Your task to perform on an android device: Search for "dell alienware" on newegg, select the first entry, add it to the cart, then select checkout. Image 0: 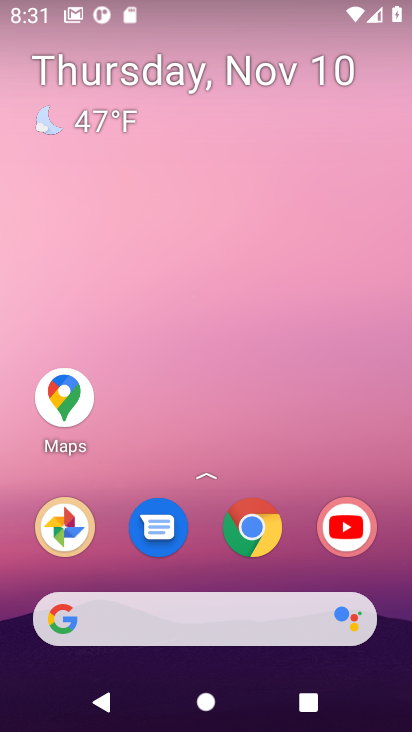
Step 0: drag from (229, 552) to (164, 25)
Your task to perform on an android device: Search for "dell alienware" on newegg, select the first entry, add it to the cart, then select checkout. Image 1: 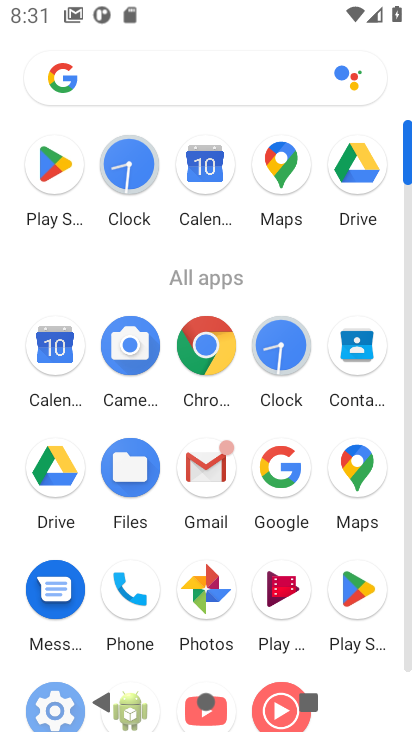
Step 1: click (214, 343)
Your task to perform on an android device: Search for "dell alienware" on newegg, select the first entry, add it to the cart, then select checkout. Image 2: 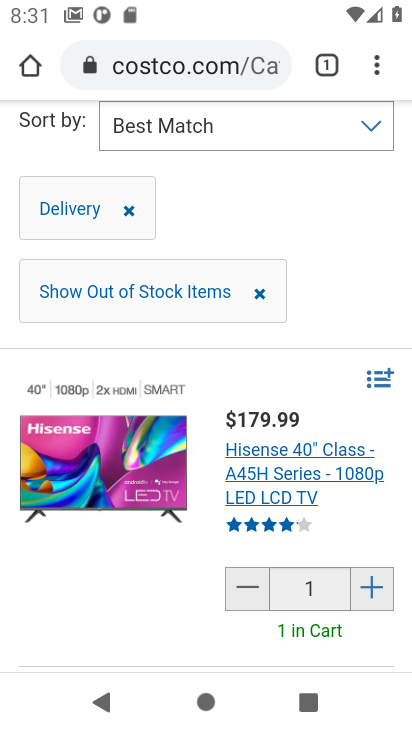
Step 2: drag from (183, 155) to (270, 488)
Your task to perform on an android device: Search for "dell alienware" on newegg, select the first entry, add it to the cart, then select checkout. Image 3: 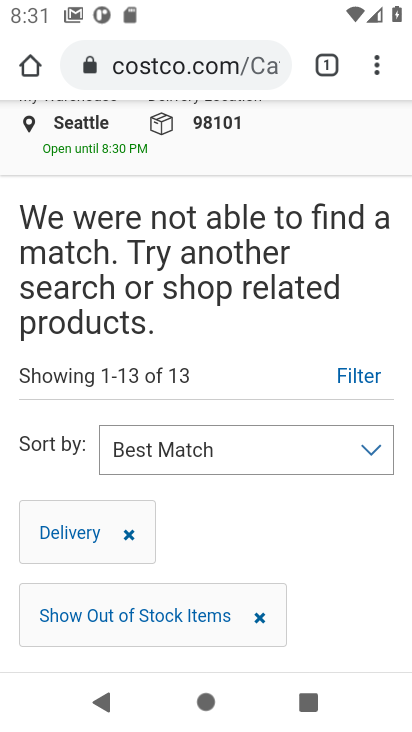
Step 3: drag from (171, 254) to (234, 546)
Your task to perform on an android device: Search for "dell alienware" on newegg, select the first entry, add it to the cart, then select checkout. Image 4: 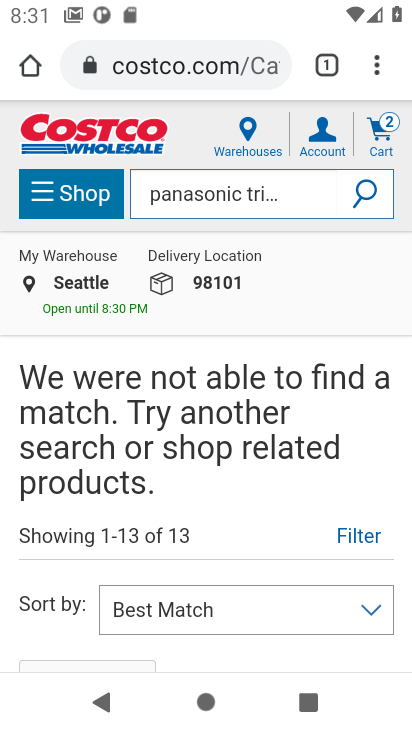
Step 4: click (158, 64)
Your task to perform on an android device: Search for "dell alienware" on newegg, select the first entry, add it to the cart, then select checkout. Image 5: 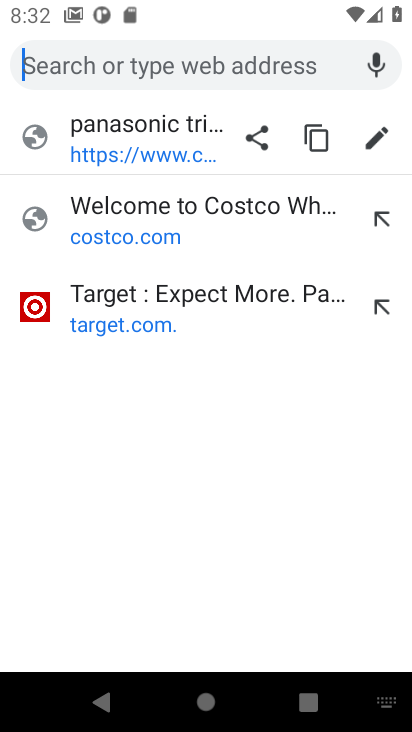
Step 5: type "newegg"
Your task to perform on an android device: Search for "dell alienware" on newegg, select the first entry, add it to the cart, then select checkout. Image 6: 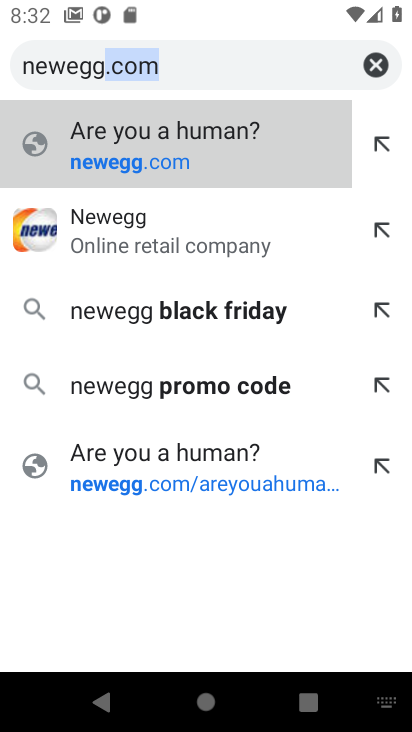
Step 6: press enter
Your task to perform on an android device: Search for "dell alienware" on newegg, select the first entry, add it to the cart, then select checkout. Image 7: 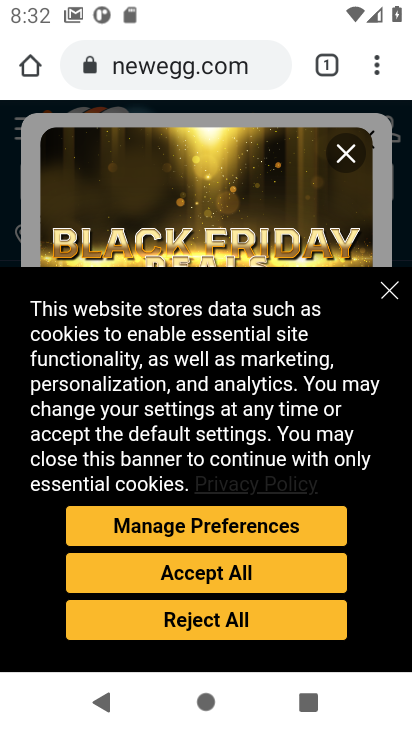
Step 7: click (204, 573)
Your task to perform on an android device: Search for "dell alienware" on newegg, select the first entry, add it to the cart, then select checkout. Image 8: 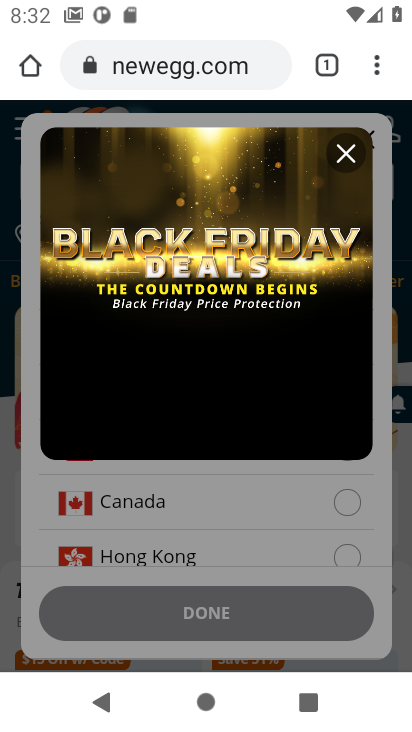
Step 8: click (345, 157)
Your task to perform on an android device: Search for "dell alienware" on newegg, select the first entry, add it to the cart, then select checkout. Image 9: 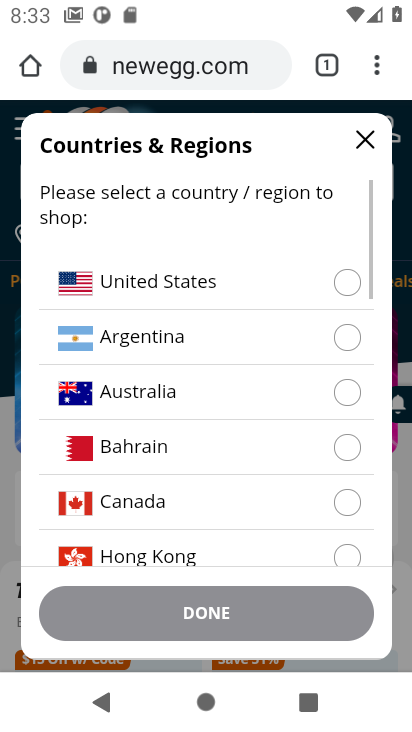
Step 9: click (127, 278)
Your task to perform on an android device: Search for "dell alienware" on newegg, select the first entry, add it to the cart, then select checkout. Image 10: 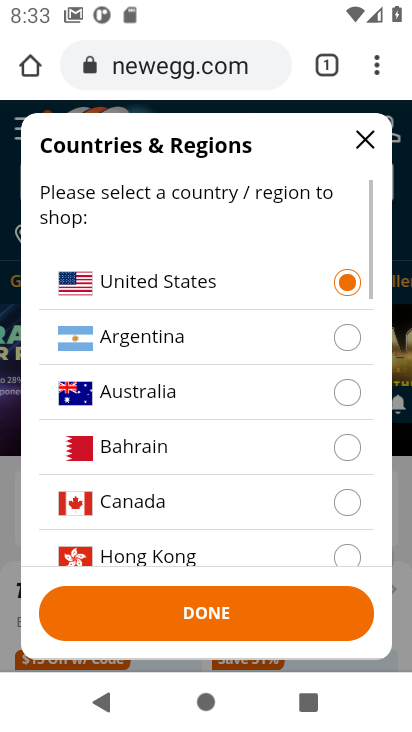
Step 10: click (254, 621)
Your task to perform on an android device: Search for "dell alienware" on newegg, select the first entry, add it to the cart, then select checkout. Image 11: 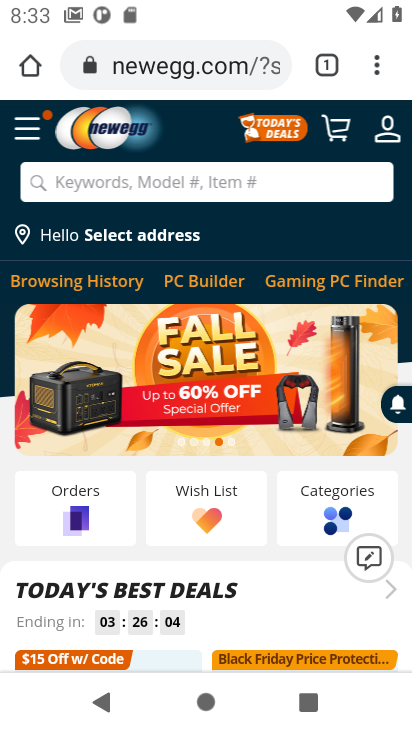
Step 11: click (65, 197)
Your task to perform on an android device: Search for "dell alienware" on newegg, select the first entry, add it to the cart, then select checkout. Image 12: 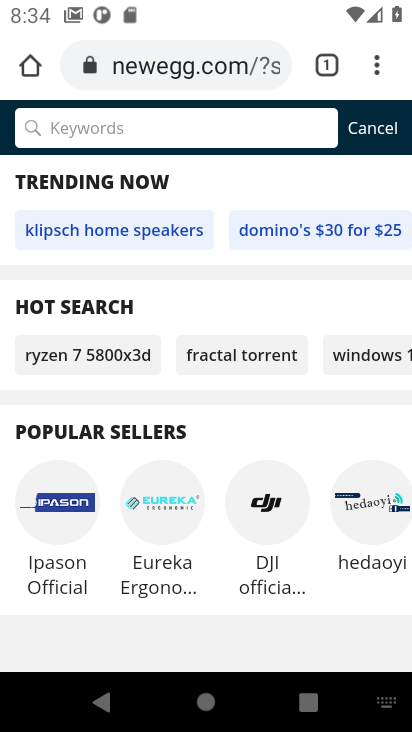
Step 12: type "dell alienware"
Your task to perform on an android device: Search for "dell alienware" on newegg, select the first entry, add it to the cart, then select checkout. Image 13: 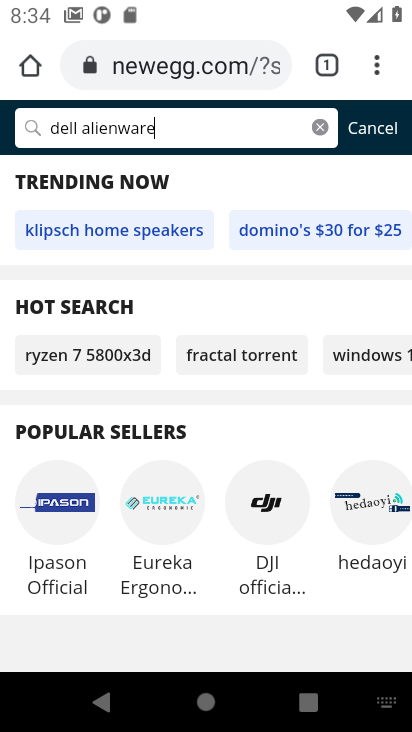
Step 13: press enter
Your task to perform on an android device: Search for "dell alienware" on newegg, select the first entry, add it to the cart, then select checkout. Image 14: 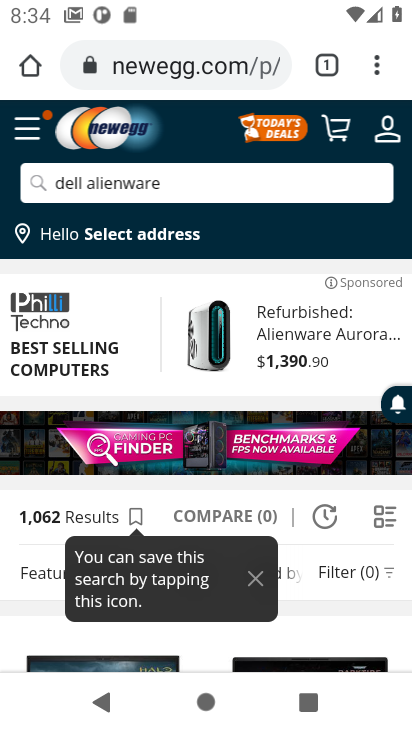
Step 14: click (259, 582)
Your task to perform on an android device: Search for "dell alienware" on newegg, select the first entry, add it to the cart, then select checkout. Image 15: 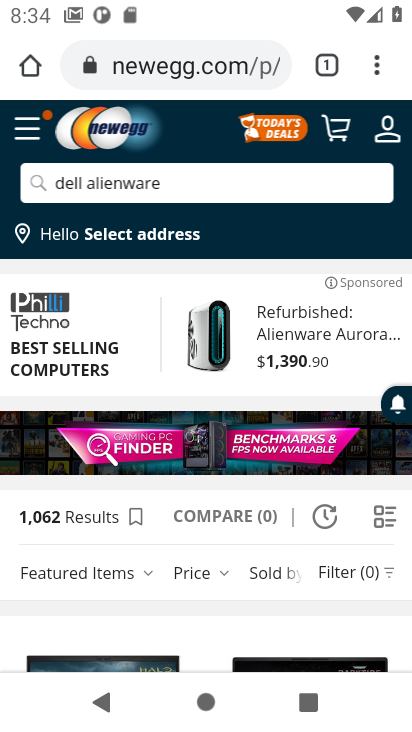
Step 15: drag from (312, 577) to (346, 238)
Your task to perform on an android device: Search for "dell alienware" on newegg, select the first entry, add it to the cart, then select checkout. Image 16: 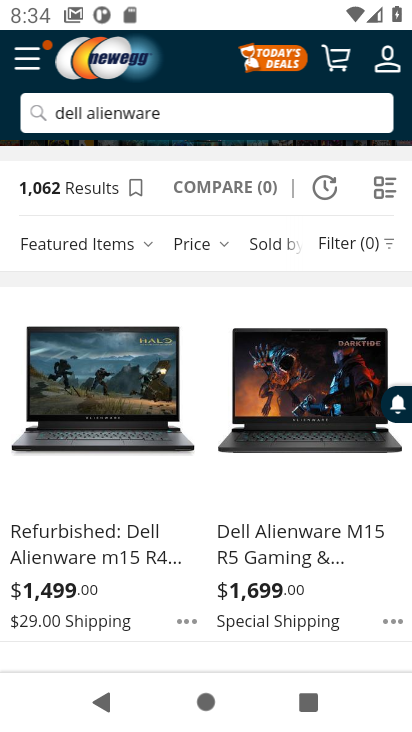
Step 16: click (106, 555)
Your task to perform on an android device: Search for "dell alienware" on newegg, select the first entry, add it to the cart, then select checkout. Image 17: 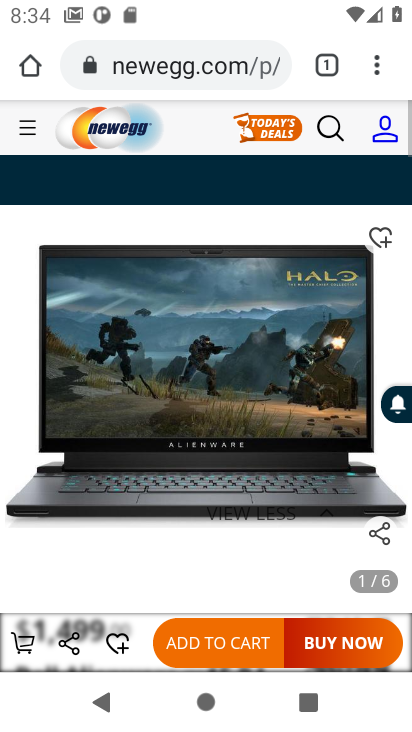
Step 17: drag from (136, 589) to (169, 301)
Your task to perform on an android device: Search for "dell alienware" on newegg, select the first entry, add it to the cart, then select checkout. Image 18: 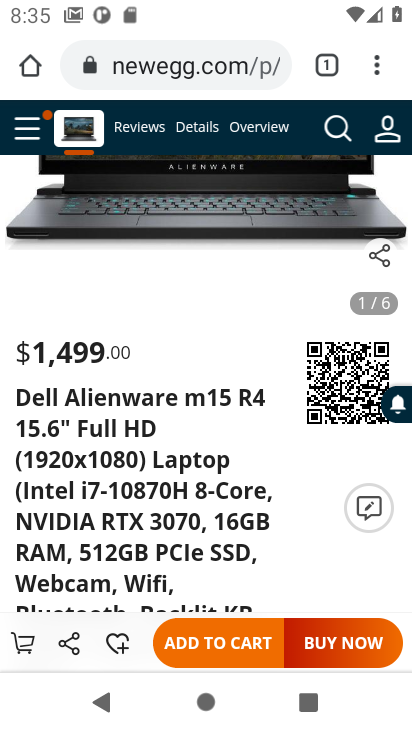
Step 18: click (186, 650)
Your task to perform on an android device: Search for "dell alienware" on newegg, select the first entry, add it to the cart, then select checkout. Image 19: 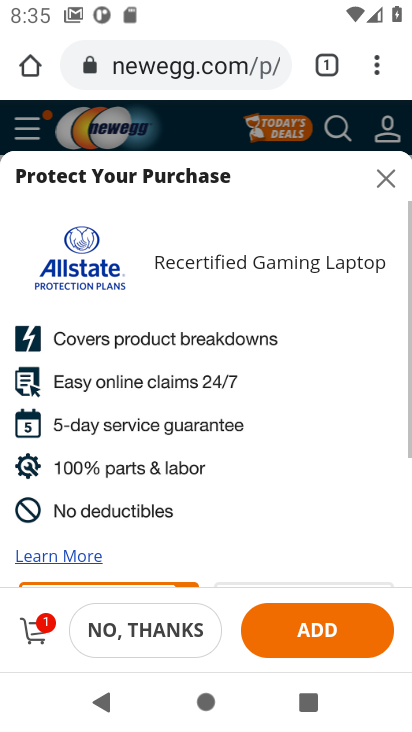
Step 19: click (294, 624)
Your task to perform on an android device: Search for "dell alienware" on newegg, select the first entry, add it to the cart, then select checkout. Image 20: 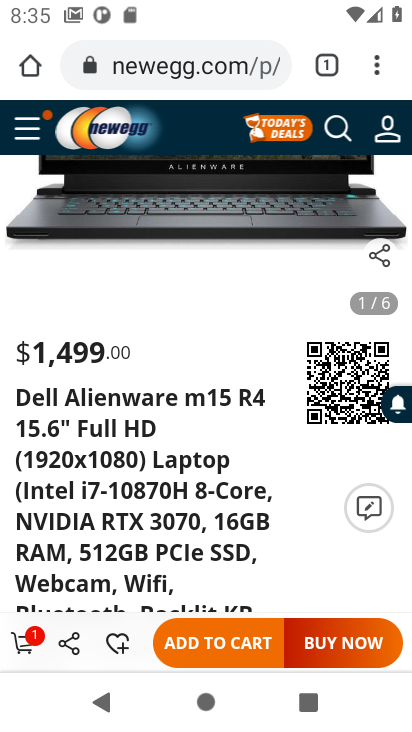
Step 20: drag from (223, 285) to (248, 566)
Your task to perform on an android device: Search for "dell alienware" on newegg, select the first entry, add it to the cart, then select checkout. Image 21: 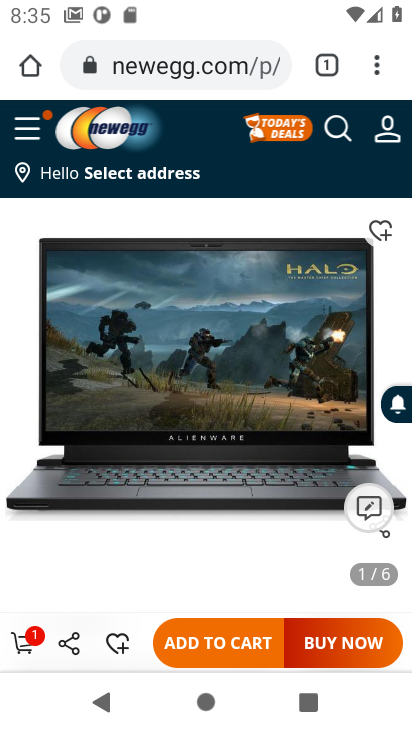
Step 21: drag from (204, 249) to (244, 469)
Your task to perform on an android device: Search for "dell alienware" on newegg, select the first entry, add it to the cart, then select checkout. Image 22: 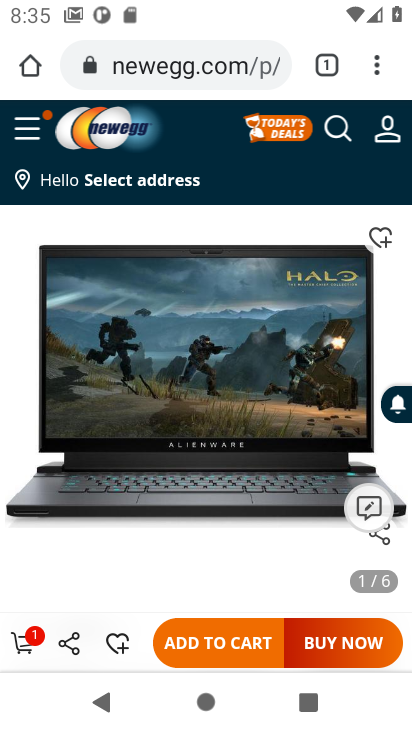
Step 22: drag from (315, 359) to (388, 662)
Your task to perform on an android device: Search for "dell alienware" on newegg, select the first entry, add it to the cart, then select checkout. Image 23: 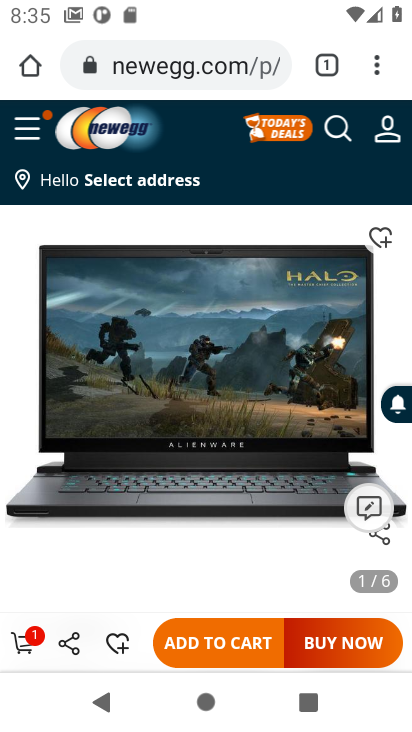
Step 23: click (22, 645)
Your task to perform on an android device: Search for "dell alienware" on newegg, select the first entry, add it to the cart, then select checkout. Image 24: 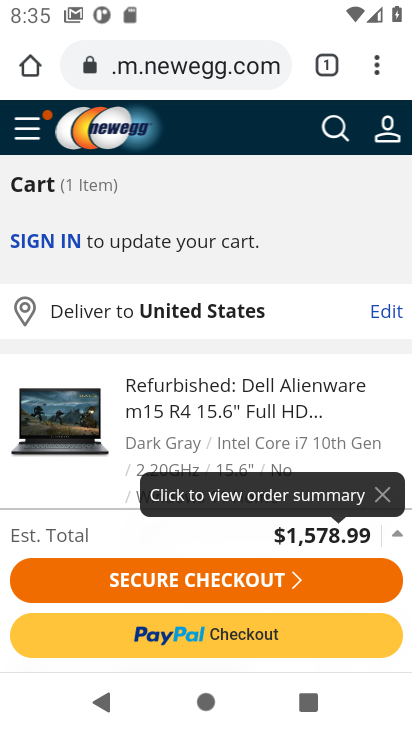
Step 24: click (166, 581)
Your task to perform on an android device: Search for "dell alienware" on newegg, select the first entry, add it to the cart, then select checkout. Image 25: 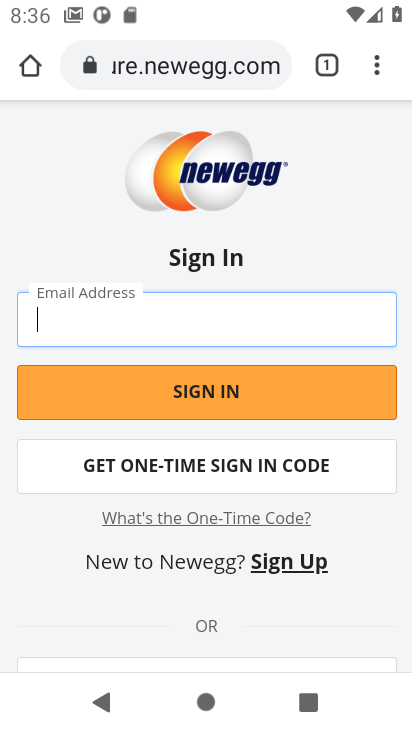
Step 25: task complete